Your task to perform on an android device: delete the emails in spam in the gmail app Image 0: 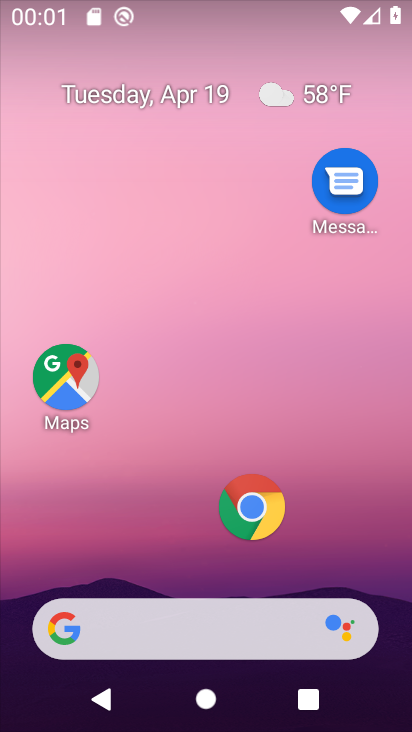
Step 0: drag from (177, 570) to (204, 47)
Your task to perform on an android device: delete the emails in spam in the gmail app Image 1: 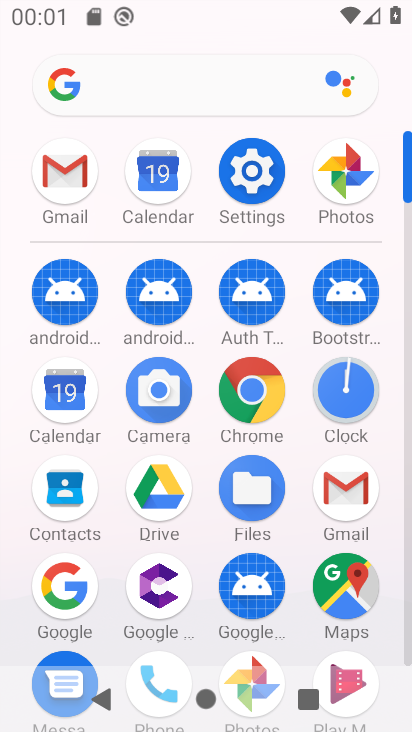
Step 1: click (352, 481)
Your task to perform on an android device: delete the emails in spam in the gmail app Image 2: 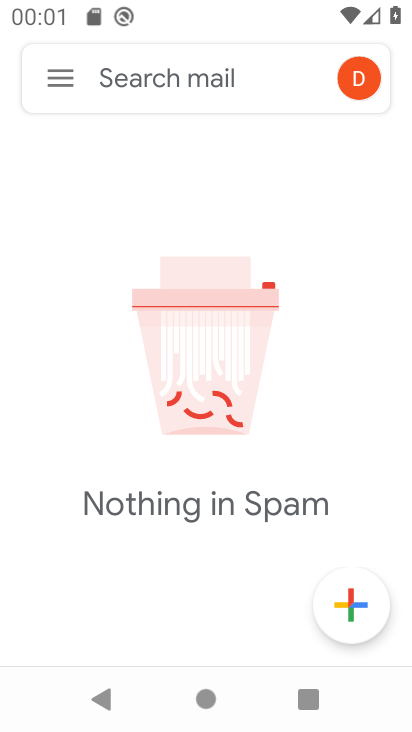
Step 2: click (66, 70)
Your task to perform on an android device: delete the emails in spam in the gmail app Image 3: 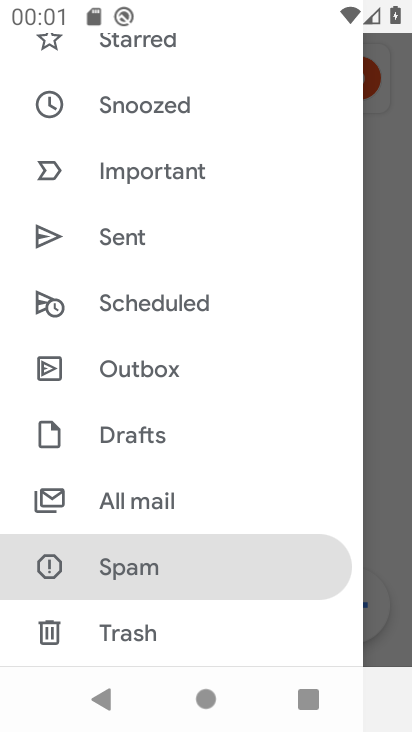
Step 3: task complete